Your task to perform on an android device: change text size in settings app Image 0: 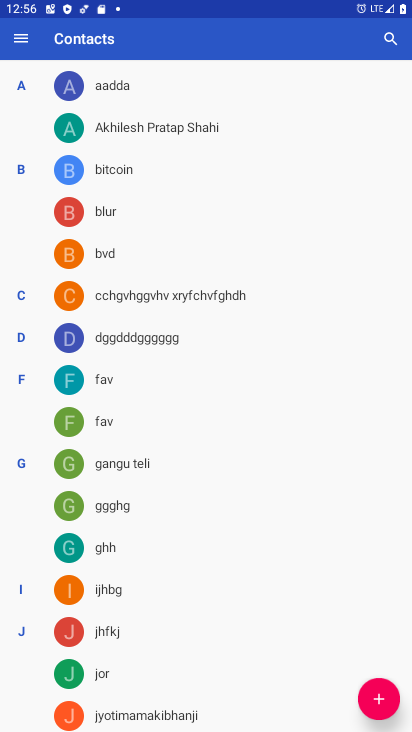
Step 0: press home button
Your task to perform on an android device: change text size in settings app Image 1: 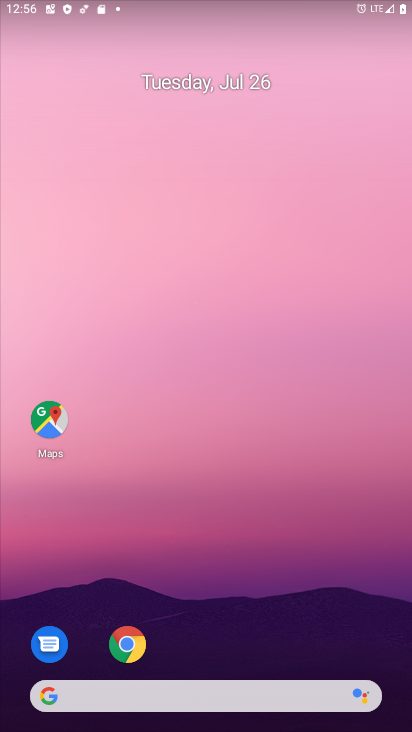
Step 1: drag from (69, 676) to (217, 27)
Your task to perform on an android device: change text size in settings app Image 2: 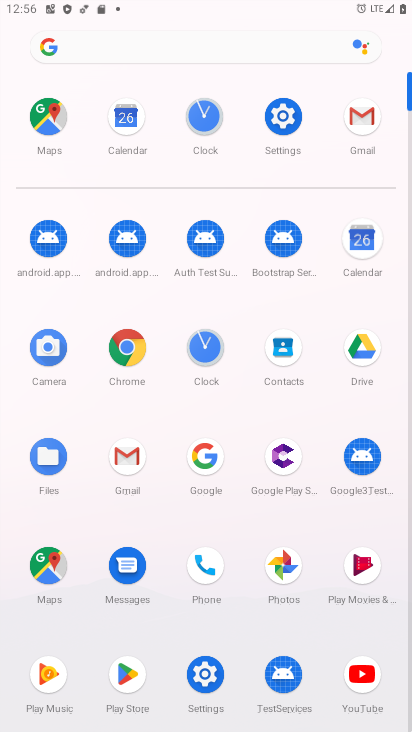
Step 2: click (273, 120)
Your task to perform on an android device: change text size in settings app Image 3: 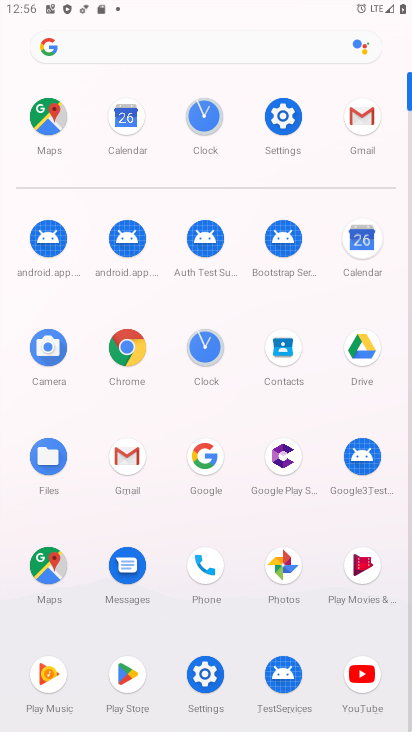
Step 3: click (273, 120)
Your task to perform on an android device: change text size in settings app Image 4: 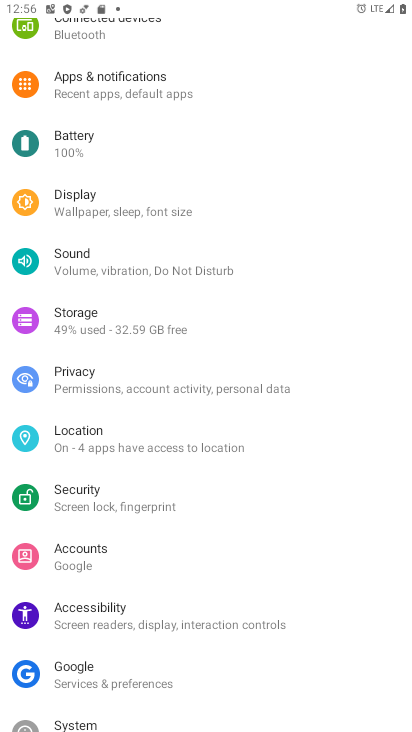
Step 4: click (189, 209)
Your task to perform on an android device: change text size in settings app Image 5: 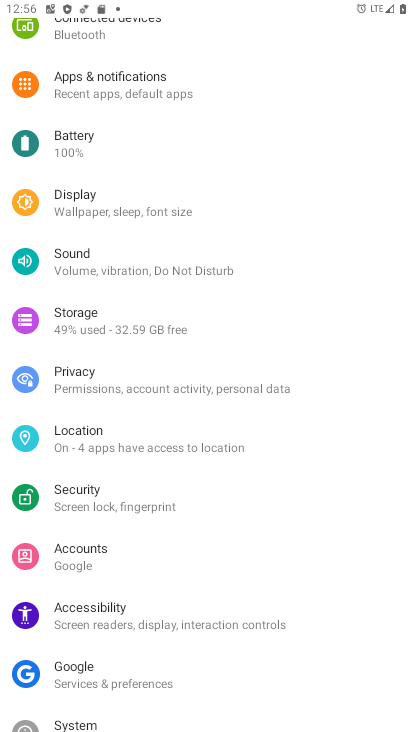
Step 5: click (189, 209)
Your task to perform on an android device: change text size in settings app Image 6: 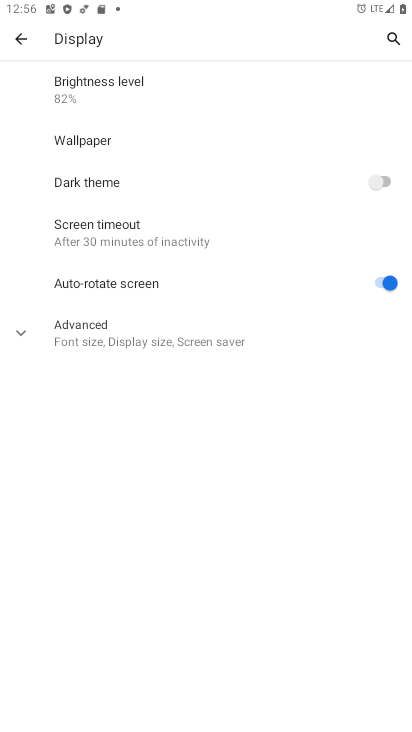
Step 6: click (166, 345)
Your task to perform on an android device: change text size in settings app Image 7: 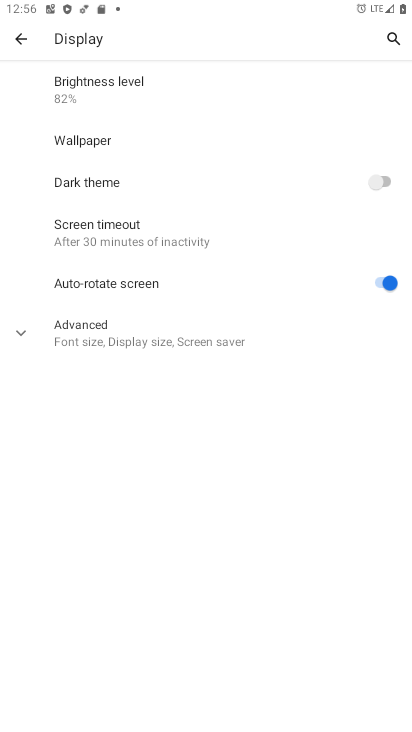
Step 7: click (166, 345)
Your task to perform on an android device: change text size in settings app Image 8: 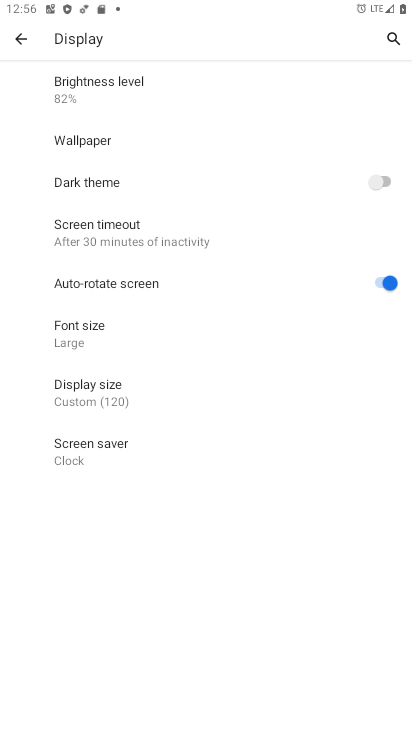
Step 8: click (76, 334)
Your task to perform on an android device: change text size in settings app Image 9: 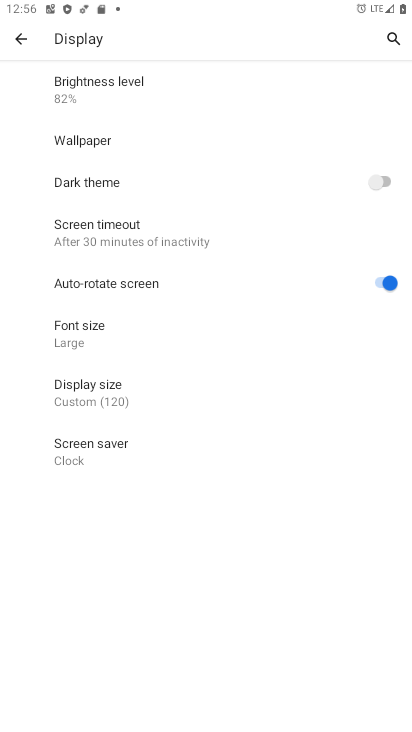
Step 9: click (76, 334)
Your task to perform on an android device: change text size in settings app Image 10: 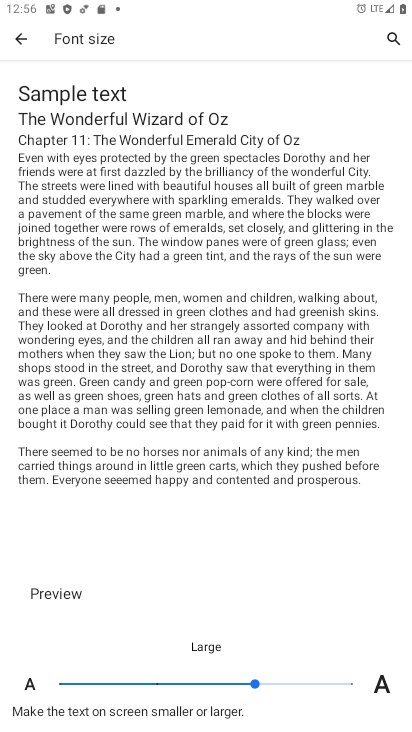
Step 10: click (350, 681)
Your task to perform on an android device: change text size in settings app Image 11: 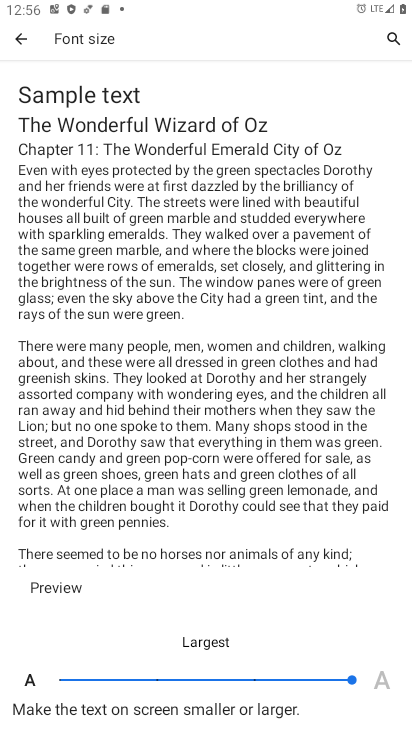
Step 11: task complete